Your task to perform on an android device: Go to calendar. Show me events next week Image 0: 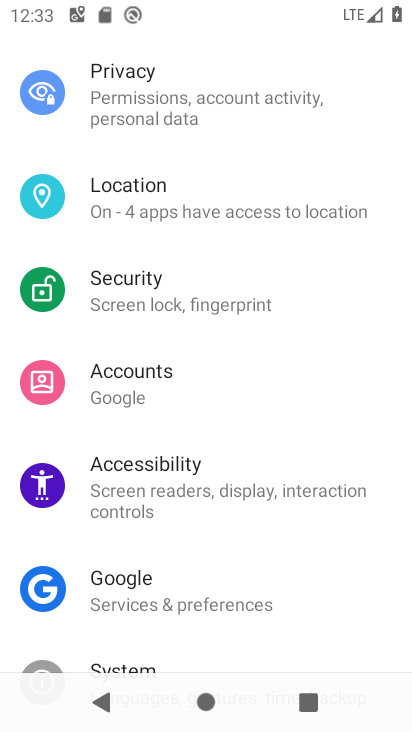
Step 0: press home button
Your task to perform on an android device: Go to calendar. Show me events next week Image 1: 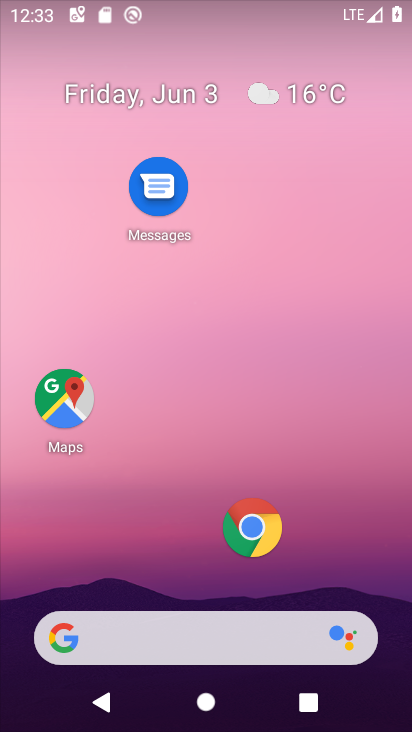
Step 1: drag from (212, 531) to (225, 79)
Your task to perform on an android device: Go to calendar. Show me events next week Image 2: 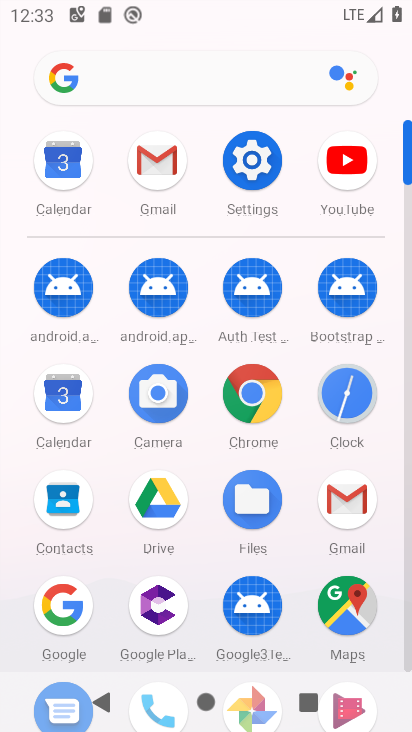
Step 2: click (62, 397)
Your task to perform on an android device: Go to calendar. Show me events next week Image 3: 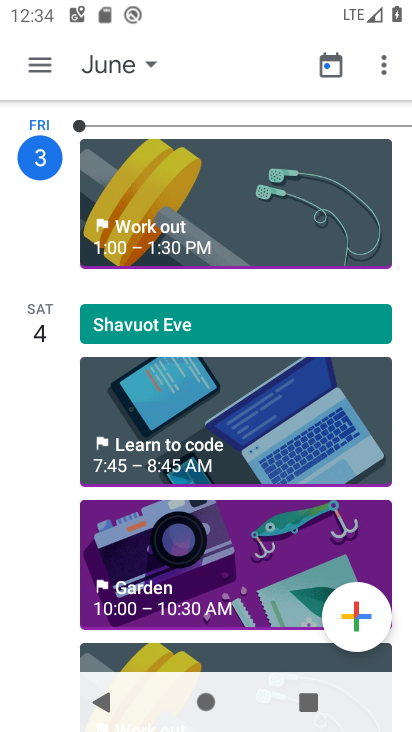
Step 3: click (35, 59)
Your task to perform on an android device: Go to calendar. Show me events next week Image 4: 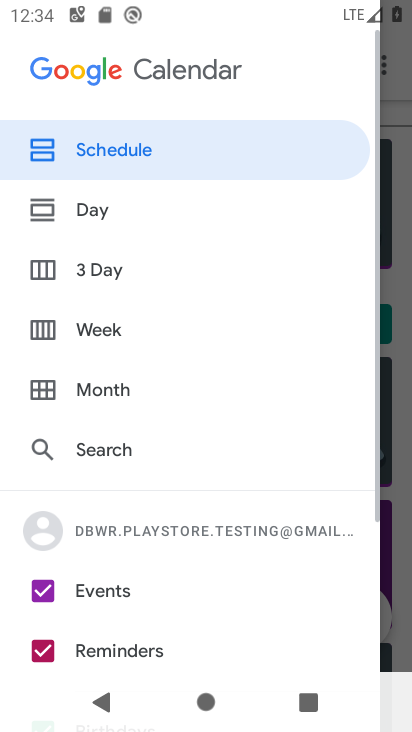
Step 4: click (115, 324)
Your task to perform on an android device: Go to calendar. Show me events next week Image 5: 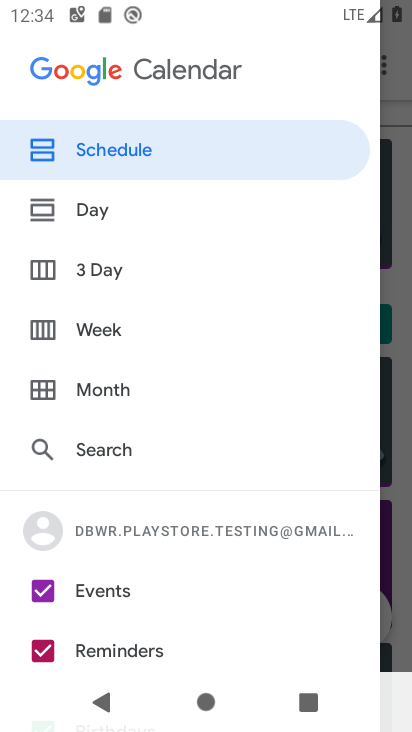
Step 5: click (118, 323)
Your task to perform on an android device: Go to calendar. Show me events next week Image 6: 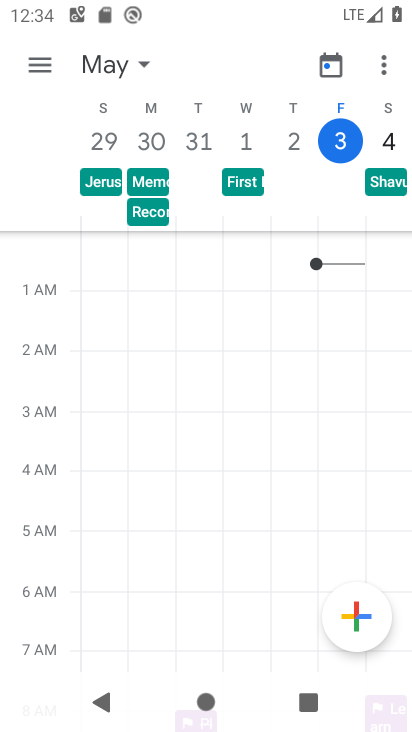
Step 6: drag from (378, 137) to (65, 147)
Your task to perform on an android device: Go to calendar. Show me events next week Image 7: 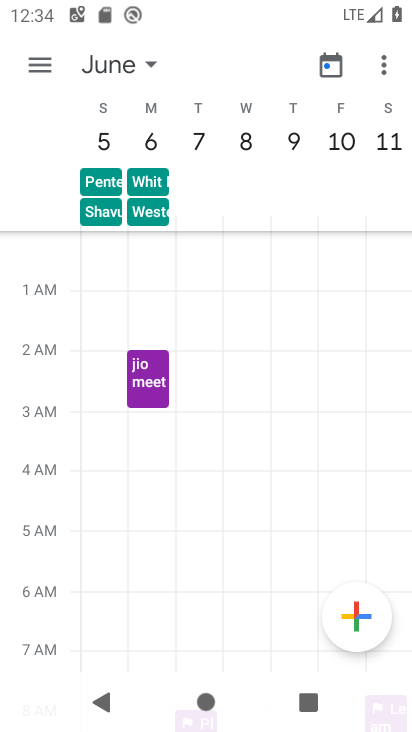
Step 7: click (102, 130)
Your task to perform on an android device: Go to calendar. Show me events next week Image 8: 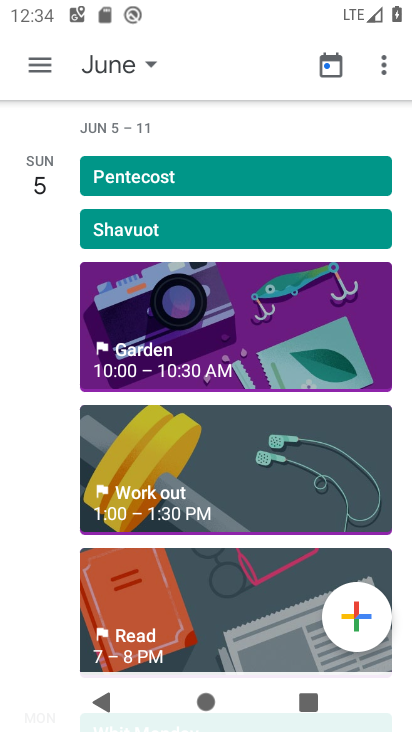
Step 8: task complete